Your task to perform on an android device: Open the stopwatch Image 0: 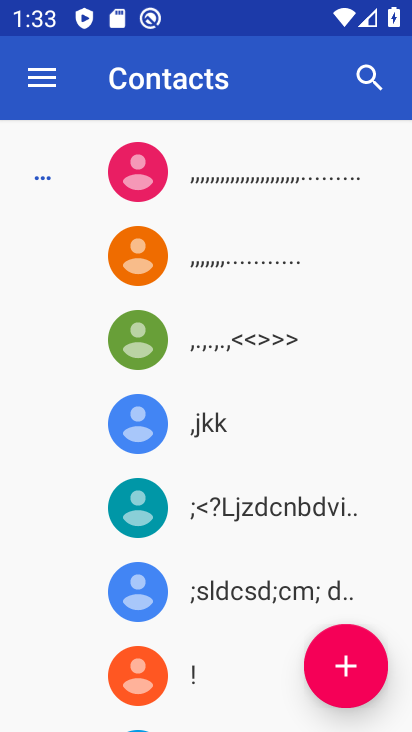
Step 0: press back button
Your task to perform on an android device: Open the stopwatch Image 1: 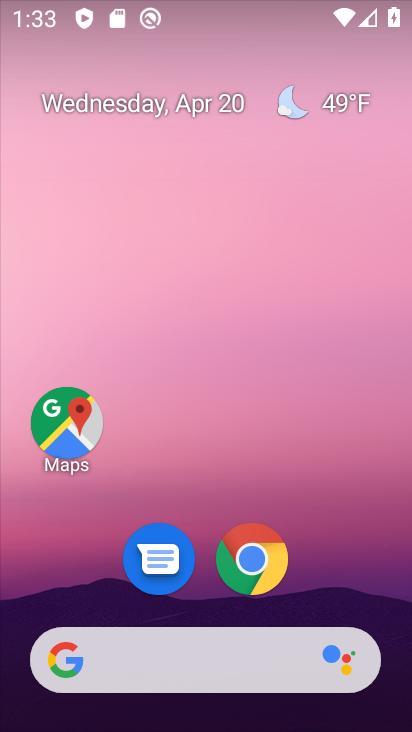
Step 1: drag from (220, 640) to (146, 146)
Your task to perform on an android device: Open the stopwatch Image 2: 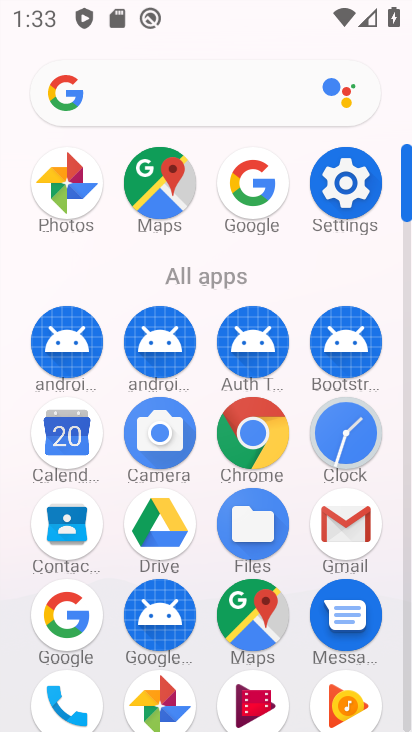
Step 2: click (329, 432)
Your task to perform on an android device: Open the stopwatch Image 3: 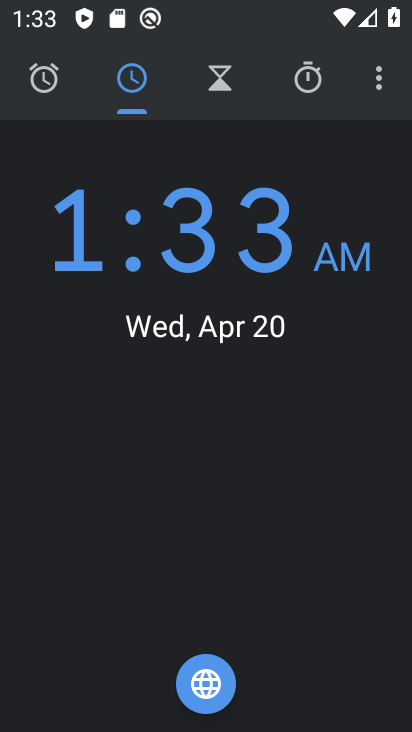
Step 3: click (297, 86)
Your task to perform on an android device: Open the stopwatch Image 4: 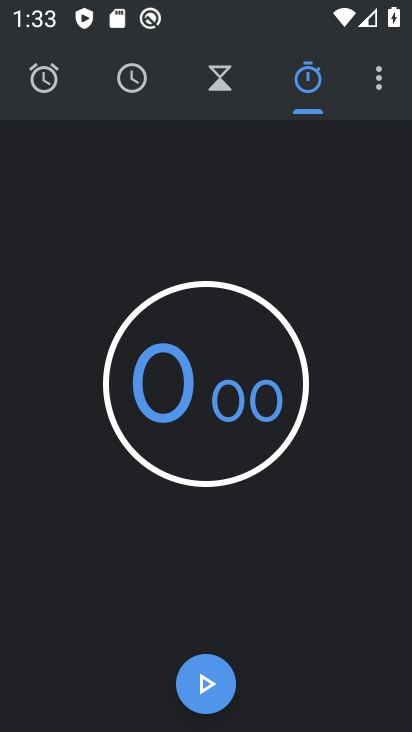
Step 4: click (207, 392)
Your task to perform on an android device: Open the stopwatch Image 5: 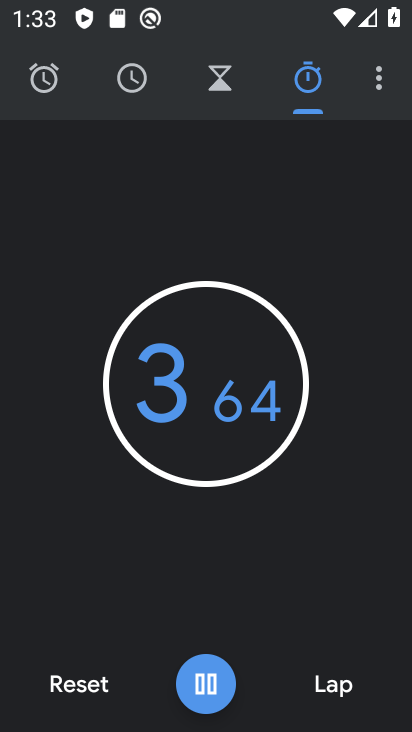
Step 5: click (203, 693)
Your task to perform on an android device: Open the stopwatch Image 6: 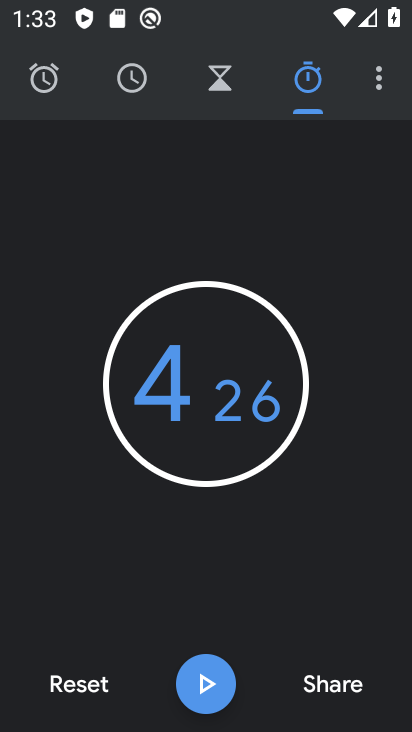
Step 6: task complete